Your task to perform on an android device: Open Google Chrome Image 0: 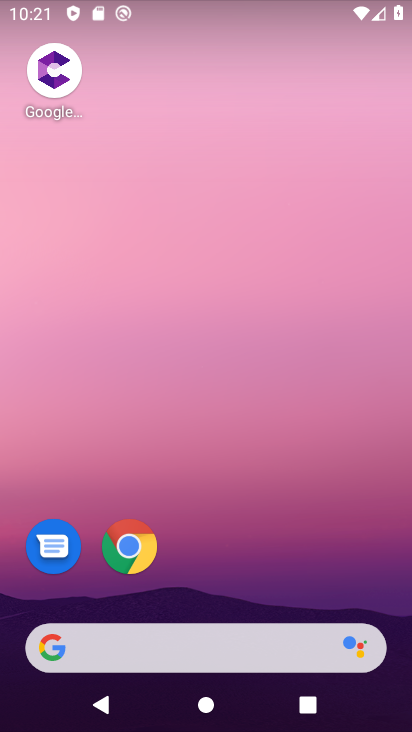
Step 0: press home button
Your task to perform on an android device: Open Google Chrome Image 1: 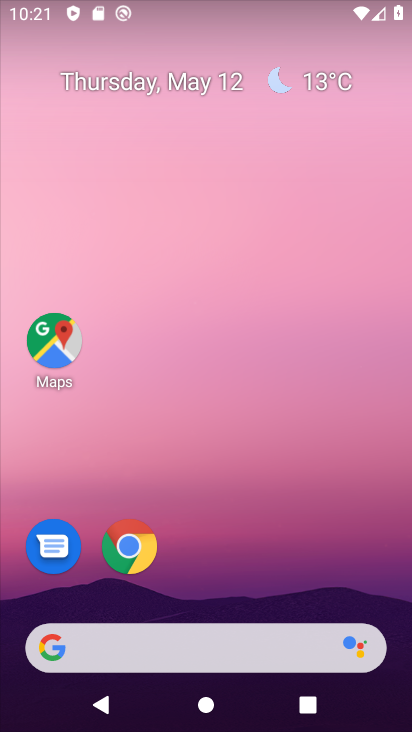
Step 1: drag from (245, 684) to (239, 143)
Your task to perform on an android device: Open Google Chrome Image 2: 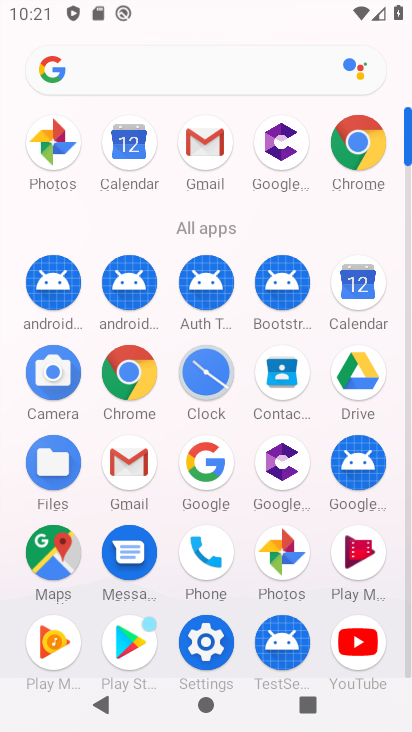
Step 2: click (351, 159)
Your task to perform on an android device: Open Google Chrome Image 3: 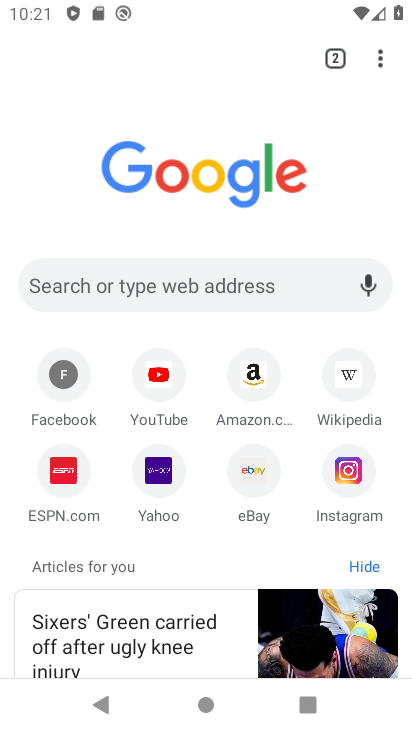
Step 3: task complete